Your task to perform on an android device: Empty the shopping cart on target. Search for "usb-a" on target, select the first entry, and add it to the cart. Image 0: 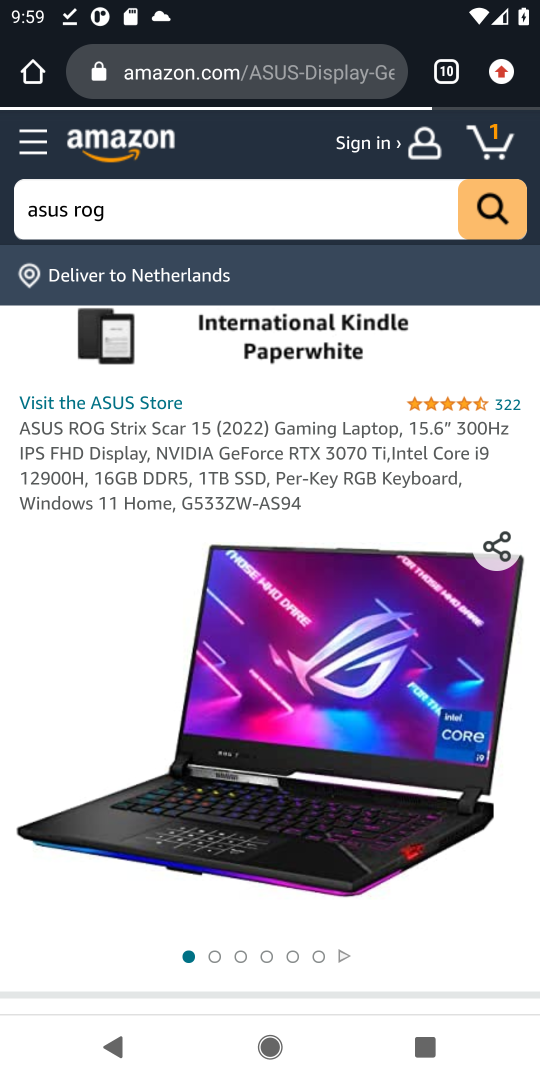
Step 0: press home button
Your task to perform on an android device: Empty the shopping cart on target. Search for "usb-a" on target, select the first entry, and add it to the cart. Image 1: 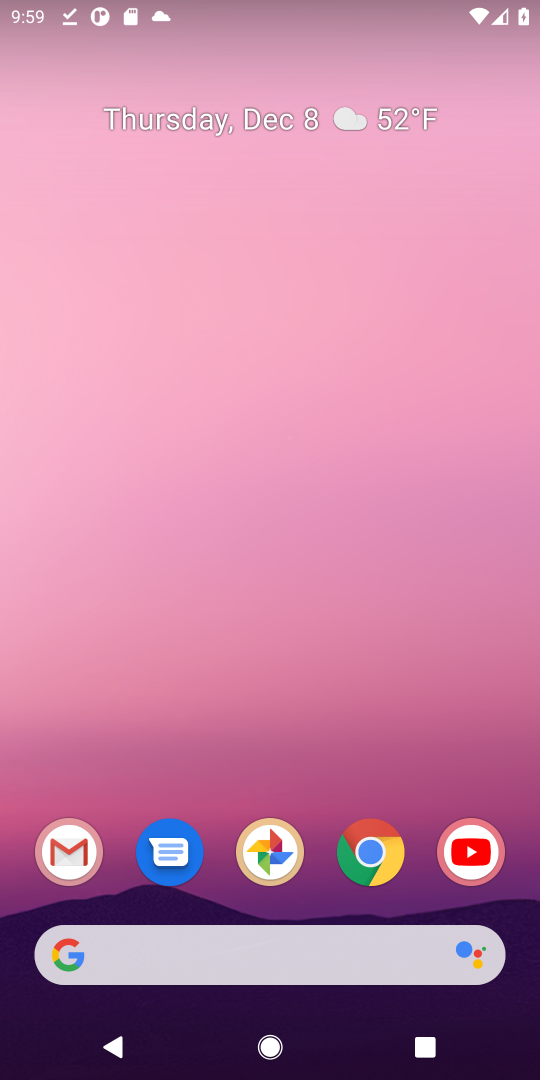
Step 1: click (317, 954)
Your task to perform on an android device: Empty the shopping cart on target. Search for "usb-a" on target, select the first entry, and add it to the cart. Image 2: 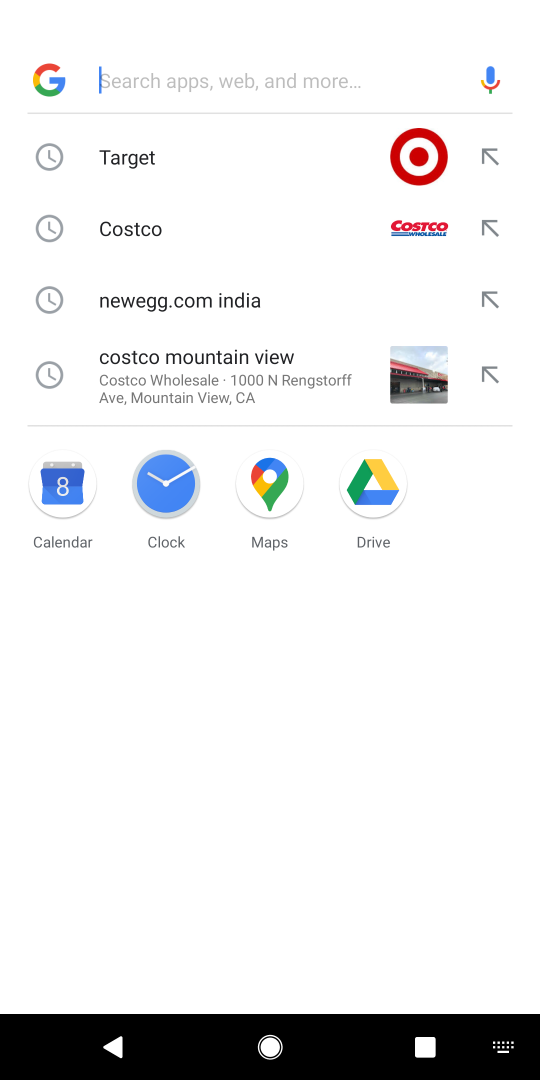
Step 2: type "target"
Your task to perform on an android device: Empty the shopping cart on target. Search for "usb-a" on target, select the first entry, and add it to the cart. Image 3: 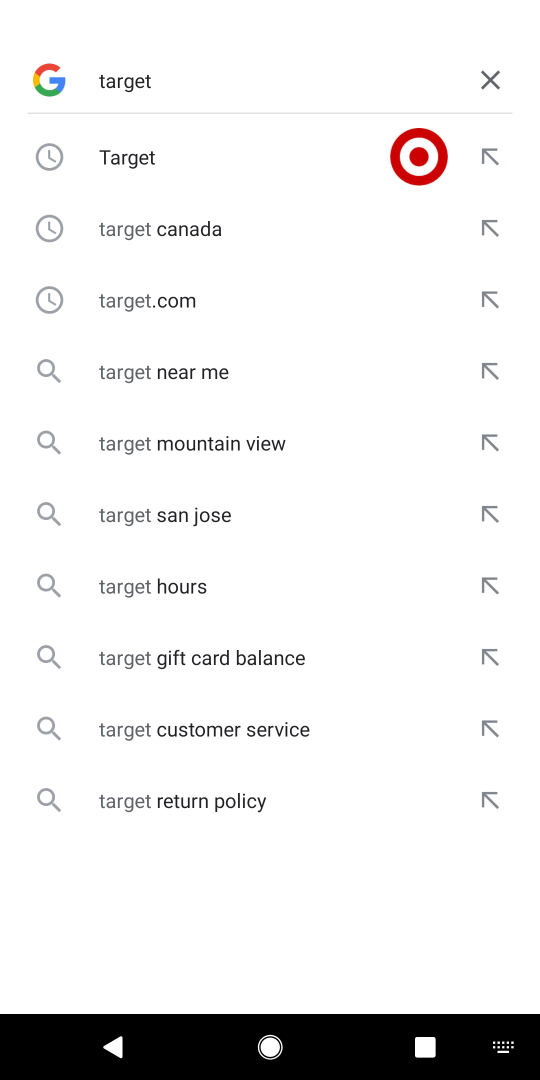
Step 3: click (188, 175)
Your task to perform on an android device: Empty the shopping cart on target. Search for "usb-a" on target, select the first entry, and add it to the cart. Image 4: 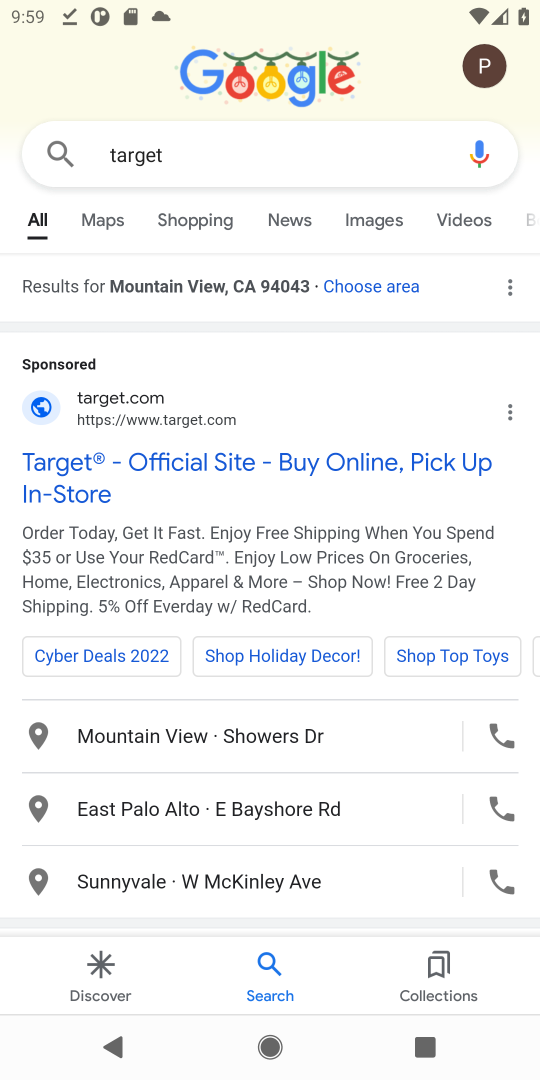
Step 4: click (156, 460)
Your task to perform on an android device: Empty the shopping cart on target. Search for "usb-a" on target, select the first entry, and add it to the cart. Image 5: 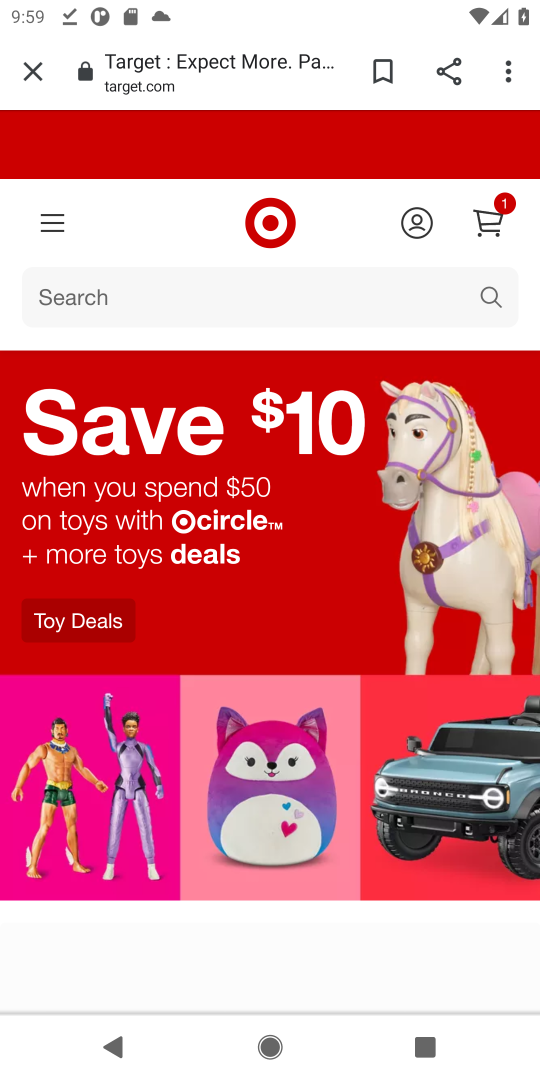
Step 5: click (142, 297)
Your task to perform on an android device: Empty the shopping cart on target. Search for "usb-a" on target, select the first entry, and add it to the cart. Image 6: 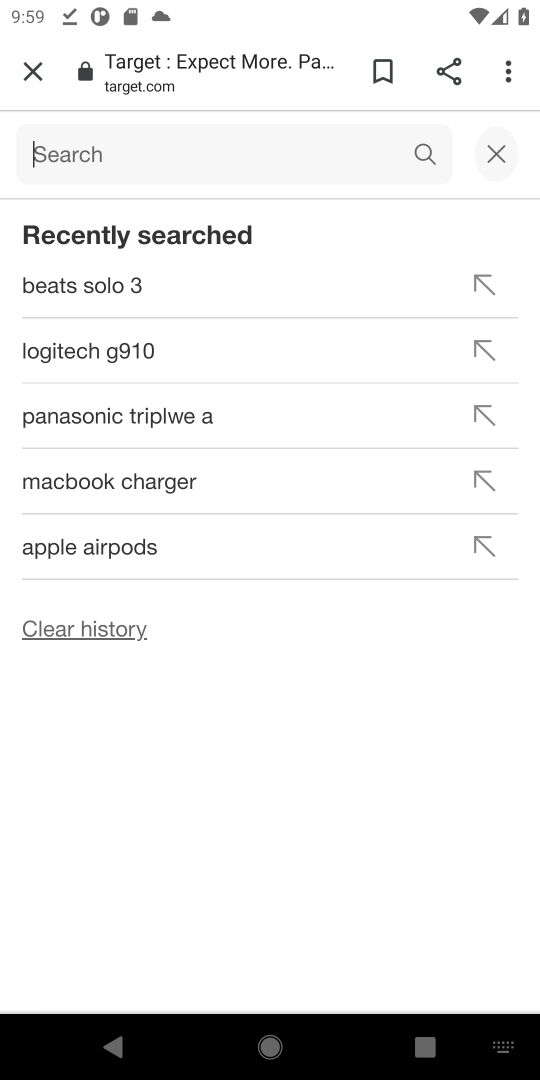
Step 6: type "usb-a"
Your task to perform on an android device: Empty the shopping cart on target. Search for "usb-a" on target, select the first entry, and add it to the cart. Image 7: 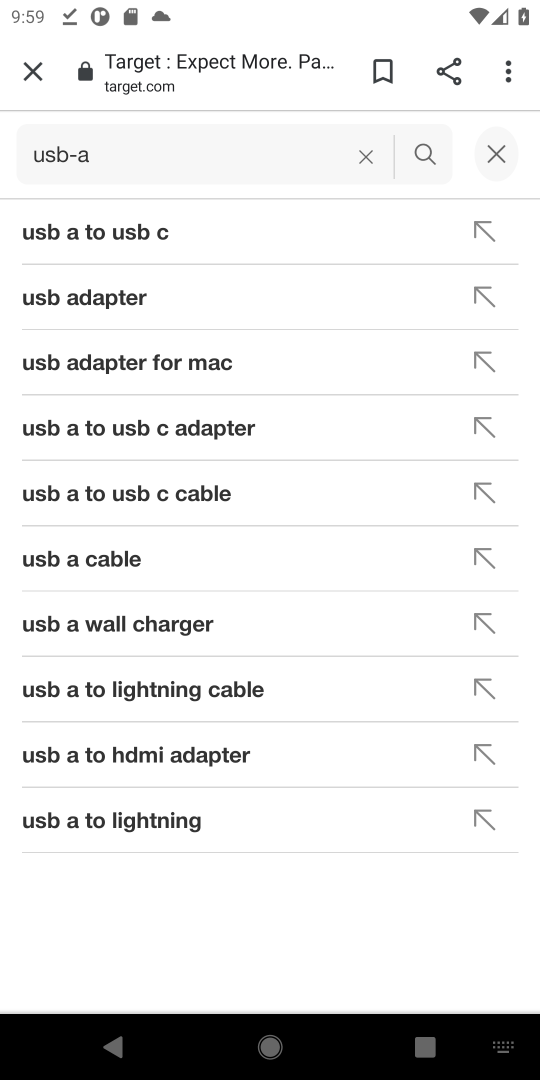
Step 7: click (433, 162)
Your task to perform on an android device: Empty the shopping cart on target. Search for "usb-a" on target, select the first entry, and add it to the cart. Image 8: 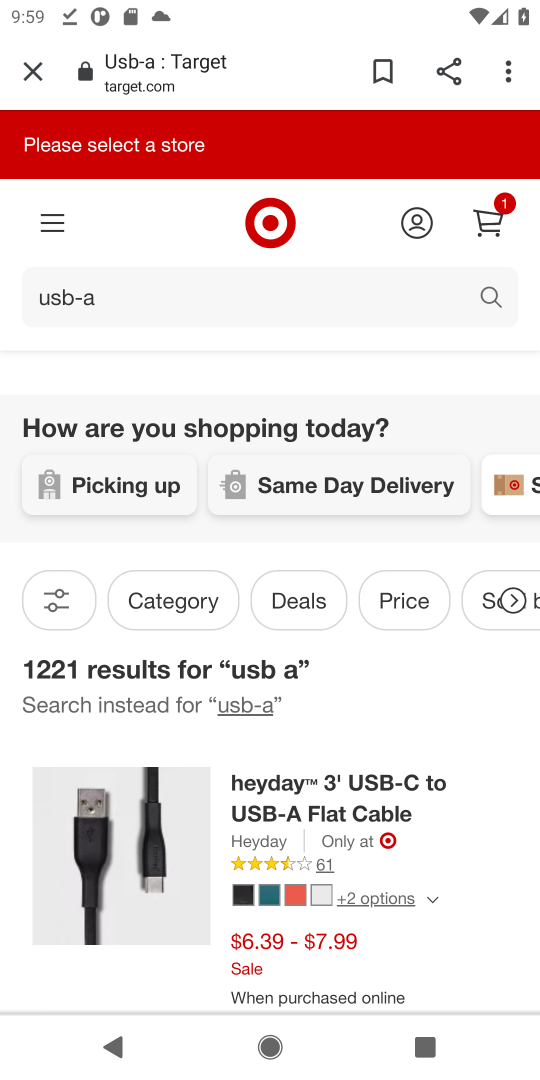
Step 8: drag from (430, 939) to (347, 621)
Your task to perform on an android device: Empty the shopping cart on target. Search for "usb-a" on target, select the first entry, and add it to the cart. Image 9: 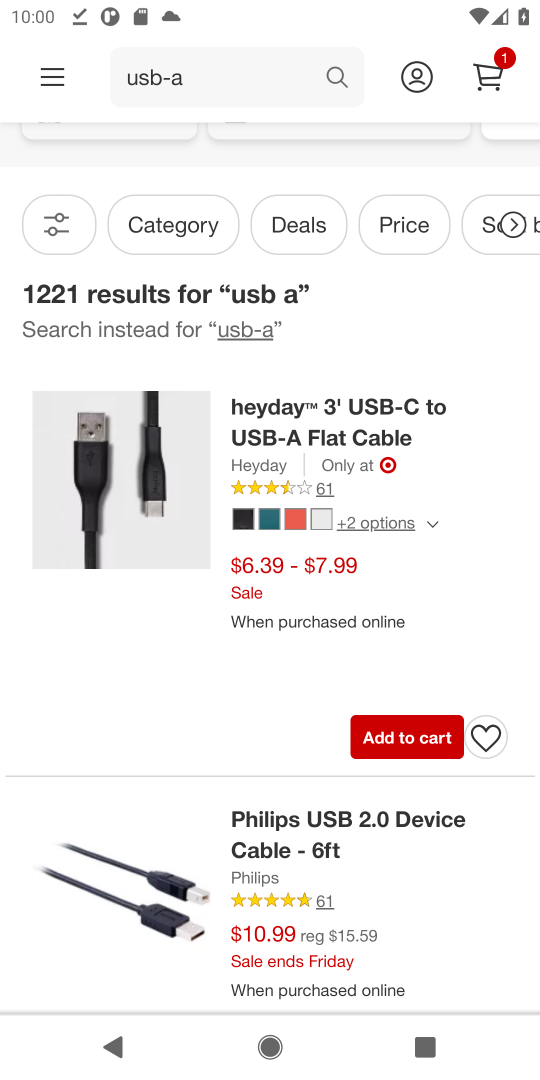
Step 9: click (395, 754)
Your task to perform on an android device: Empty the shopping cart on target. Search for "usb-a" on target, select the first entry, and add it to the cart. Image 10: 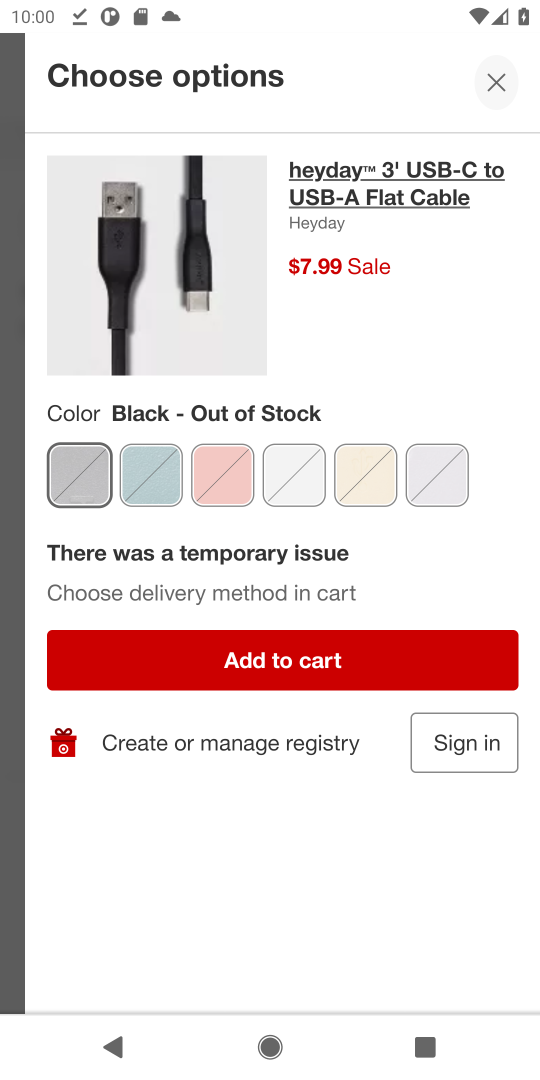
Step 10: click (357, 672)
Your task to perform on an android device: Empty the shopping cart on target. Search for "usb-a" on target, select the first entry, and add it to the cart. Image 11: 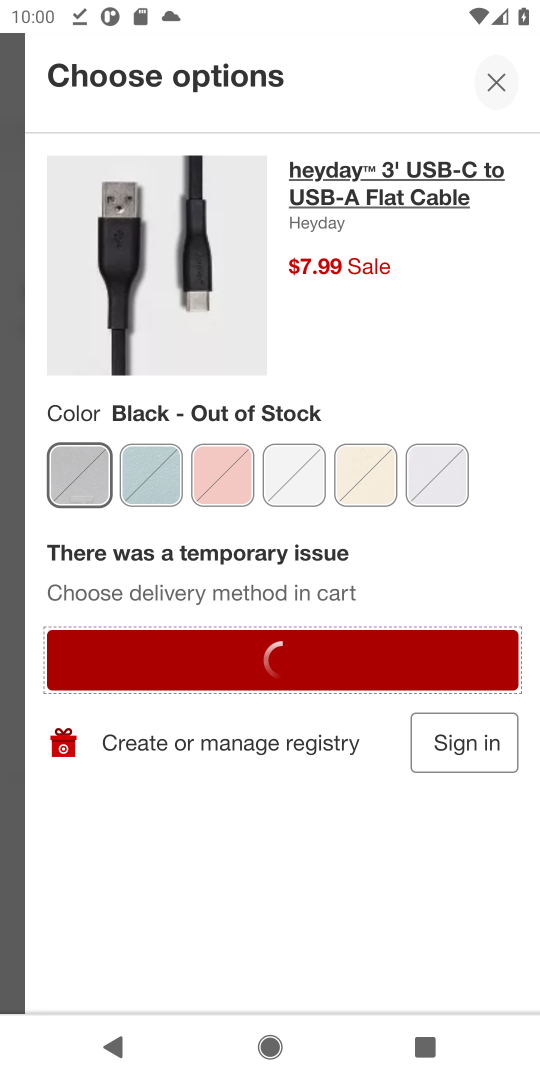
Step 11: task complete